Your task to perform on an android device: Open Maps and search for coffee Image 0: 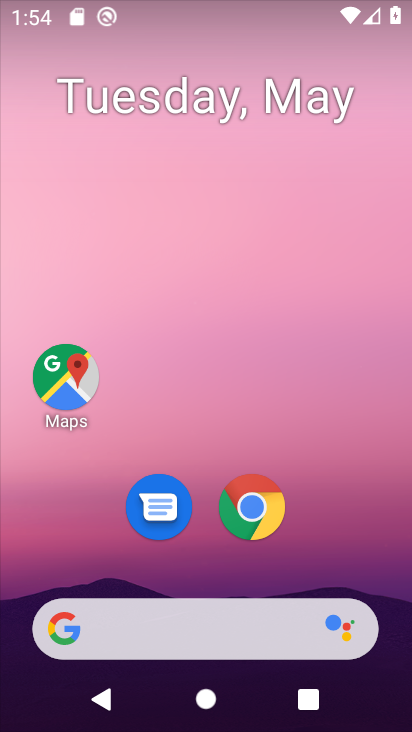
Step 0: click (76, 385)
Your task to perform on an android device: Open Maps and search for coffee Image 1: 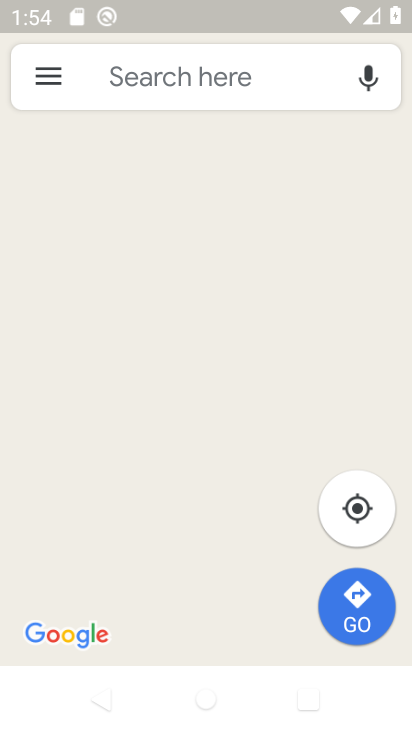
Step 1: click (239, 80)
Your task to perform on an android device: Open Maps and search for coffee Image 2: 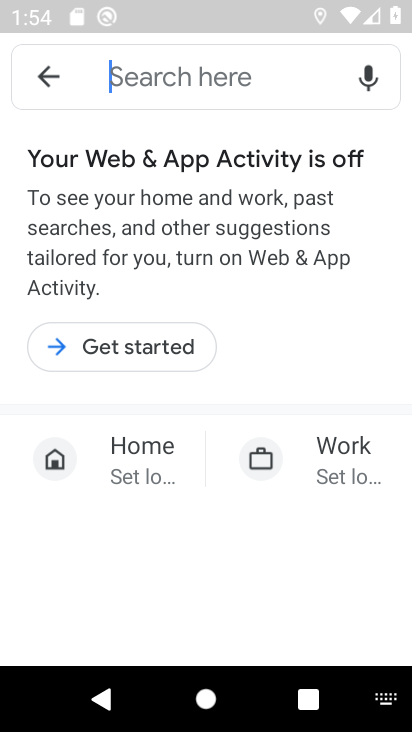
Step 2: type "coffee"
Your task to perform on an android device: Open Maps and search for coffee Image 3: 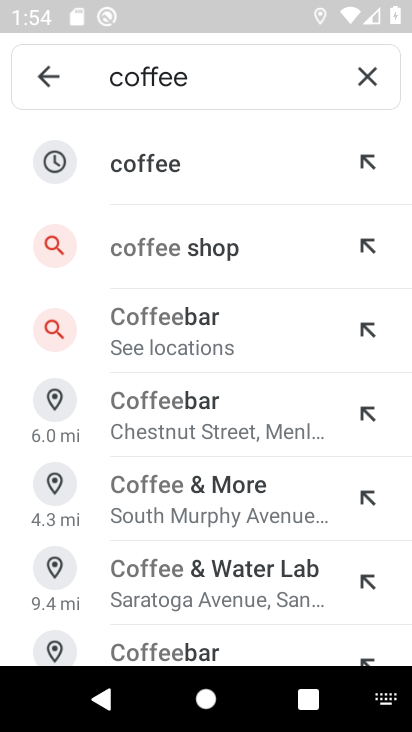
Step 3: click (212, 172)
Your task to perform on an android device: Open Maps and search for coffee Image 4: 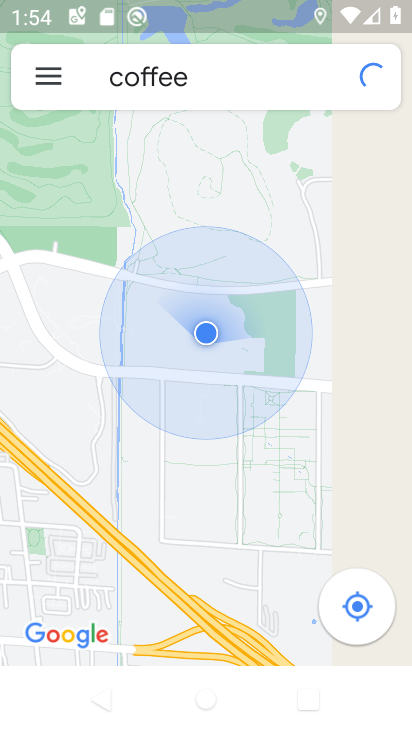
Step 4: task complete